Your task to perform on an android device: turn notification dots on Image 0: 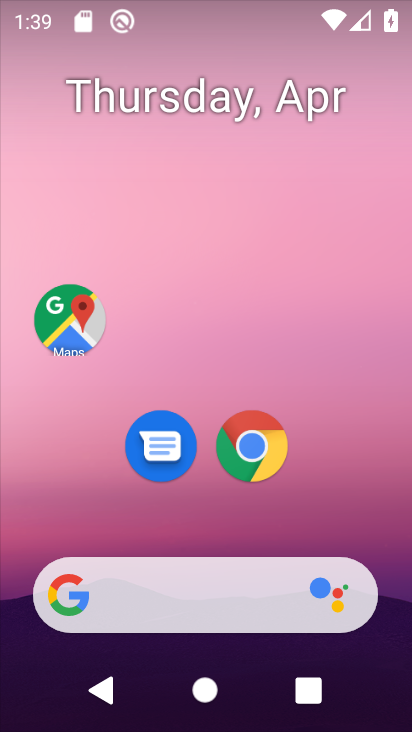
Step 0: drag from (357, 366) to (278, 122)
Your task to perform on an android device: turn notification dots on Image 1: 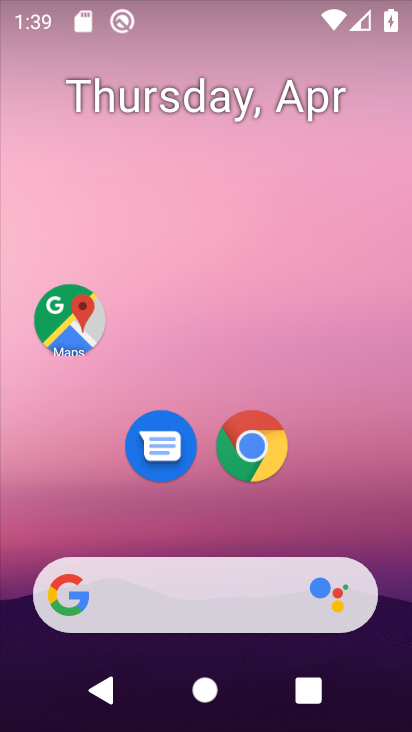
Step 1: drag from (345, 523) to (285, 114)
Your task to perform on an android device: turn notification dots on Image 2: 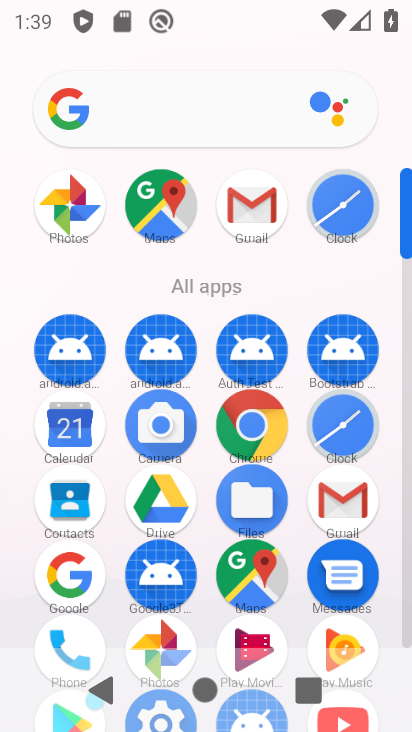
Step 2: drag from (299, 625) to (285, 355)
Your task to perform on an android device: turn notification dots on Image 3: 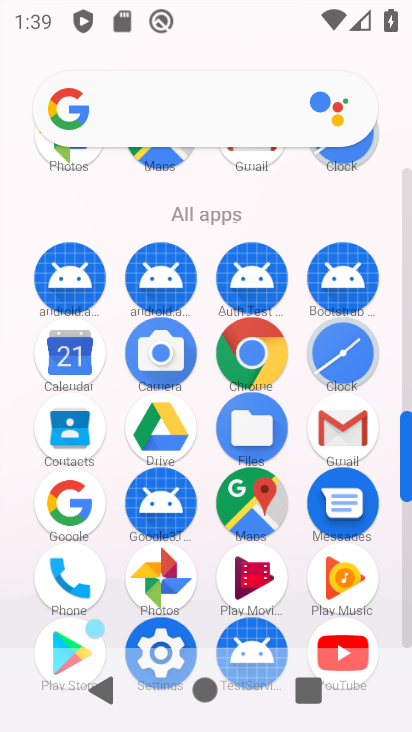
Step 3: click (158, 627)
Your task to perform on an android device: turn notification dots on Image 4: 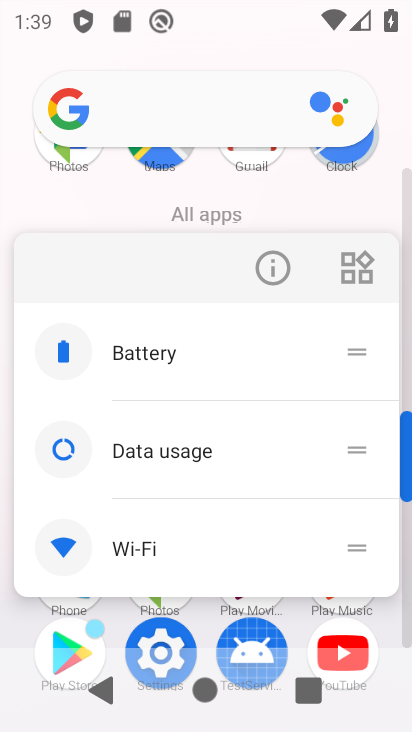
Step 4: click (167, 636)
Your task to perform on an android device: turn notification dots on Image 5: 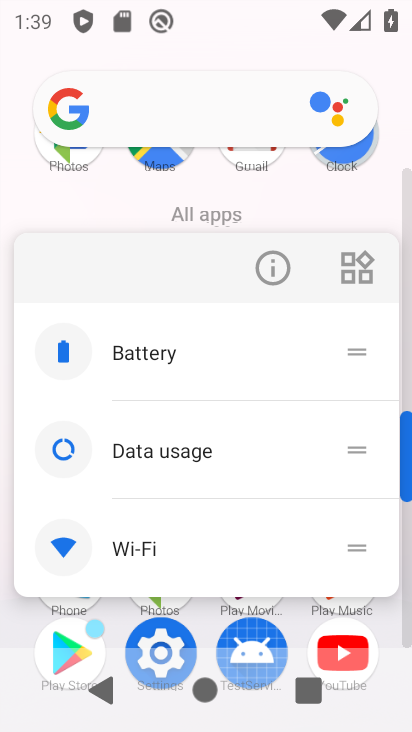
Step 5: click (175, 644)
Your task to perform on an android device: turn notification dots on Image 6: 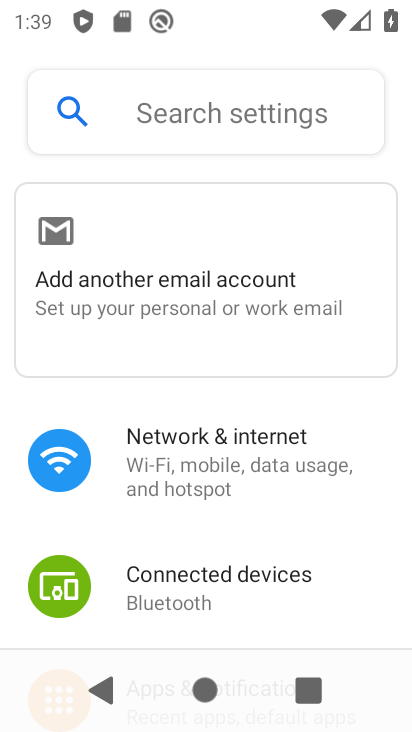
Step 6: drag from (228, 575) to (286, 343)
Your task to perform on an android device: turn notification dots on Image 7: 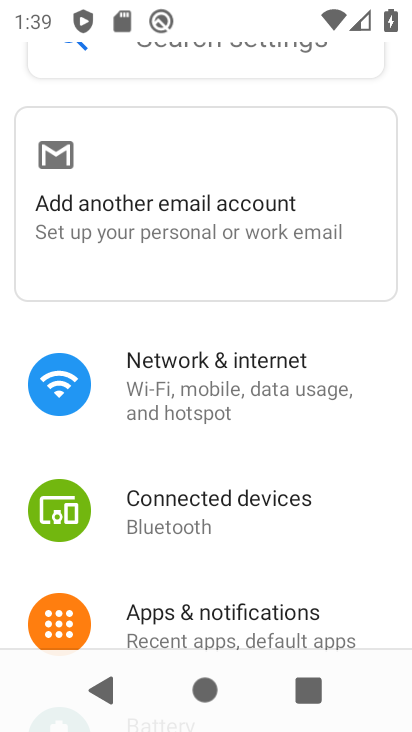
Step 7: click (249, 628)
Your task to perform on an android device: turn notification dots on Image 8: 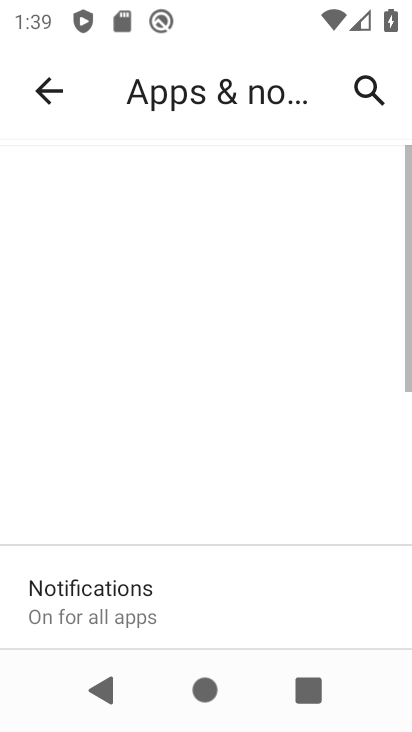
Step 8: drag from (228, 635) to (298, 324)
Your task to perform on an android device: turn notification dots on Image 9: 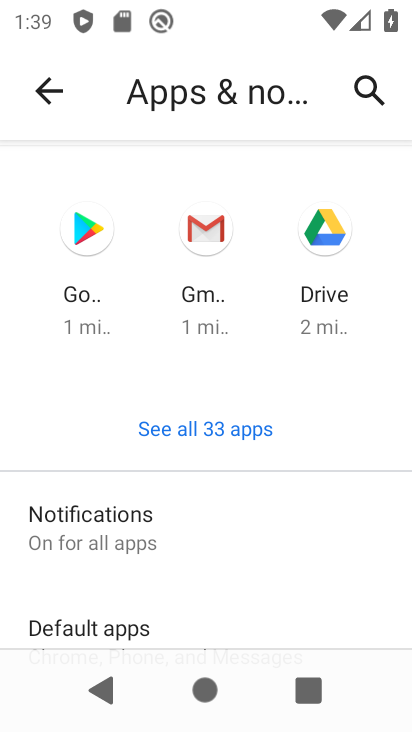
Step 9: drag from (168, 611) to (334, 216)
Your task to perform on an android device: turn notification dots on Image 10: 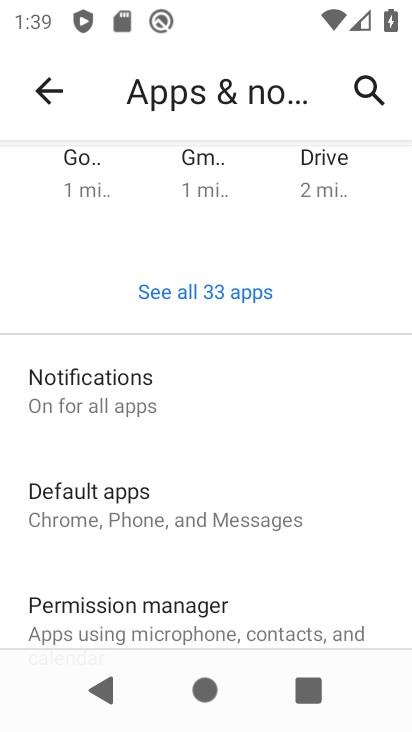
Step 10: drag from (219, 578) to (339, 267)
Your task to perform on an android device: turn notification dots on Image 11: 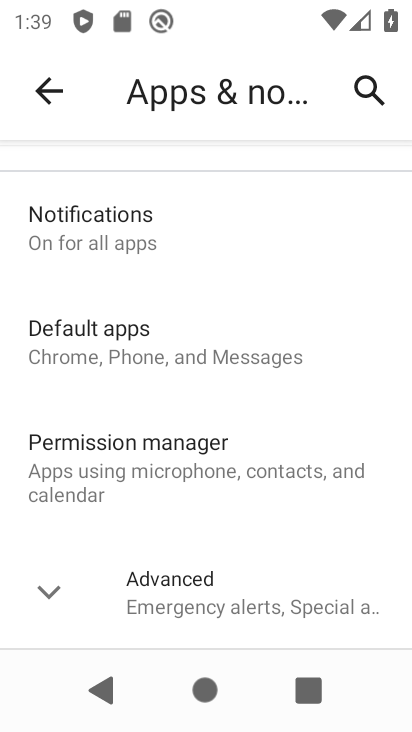
Step 11: click (120, 233)
Your task to perform on an android device: turn notification dots on Image 12: 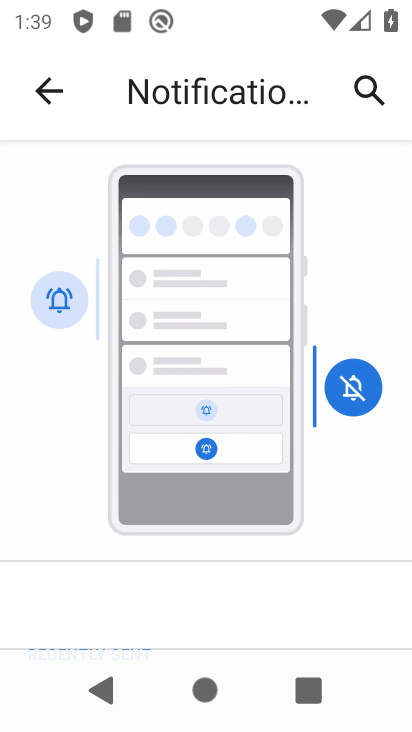
Step 12: drag from (151, 590) to (244, 276)
Your task to perform on an android device: turn notification dots on Image 13: 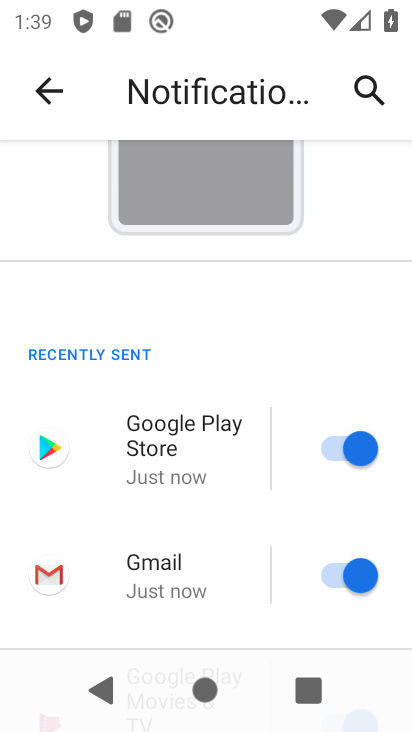
Step 13: drag from (227, 573) to (308, 228)
Your task to perform on an android device: turn notification dots on Image 14: 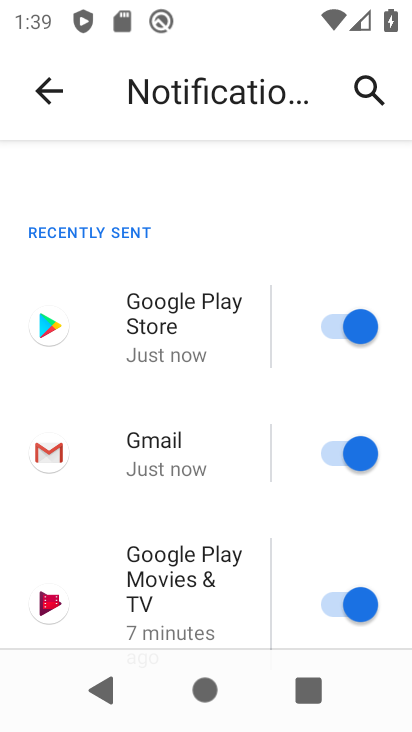
Step 14: drag from (219, 605) to (332, 259)
Your task to perform on an android device: turn notification dots on Image 15: 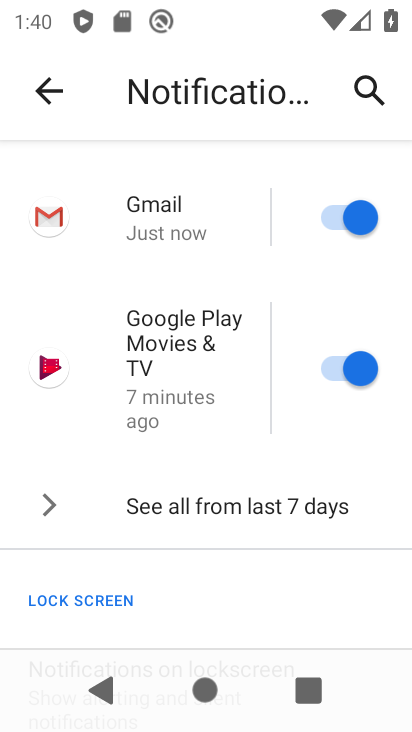
Step 15: drag from (157, 623) to (327, 143)
Your task to perform on an android device: turn notification dots on Image 16: 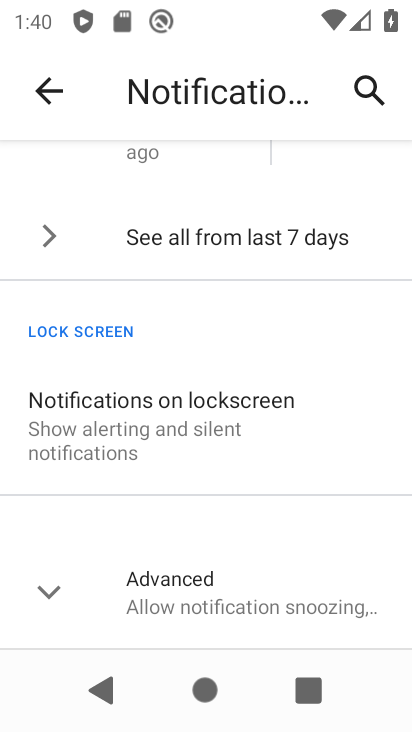
Step 16: click (160, 586)
Your task to perform on an android device: turn notification dots on Image 17: 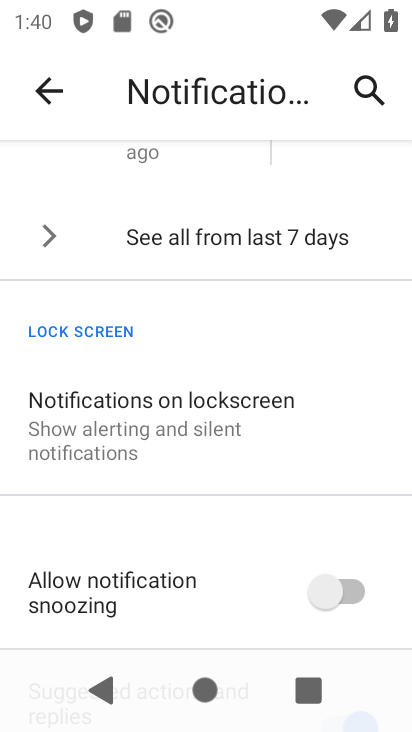
Step 17: task complete